Your task to perform on an android device: Open maps Image 0: 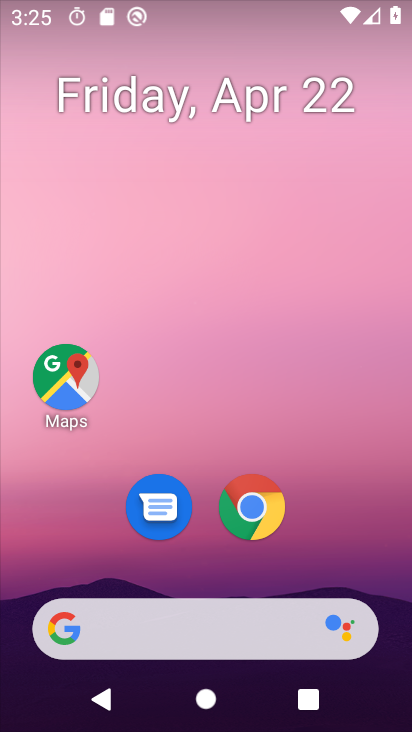
Step 0: drag from (324, 567) to (362, 58)
Your task to perform on an android device: Open maps Image 1: 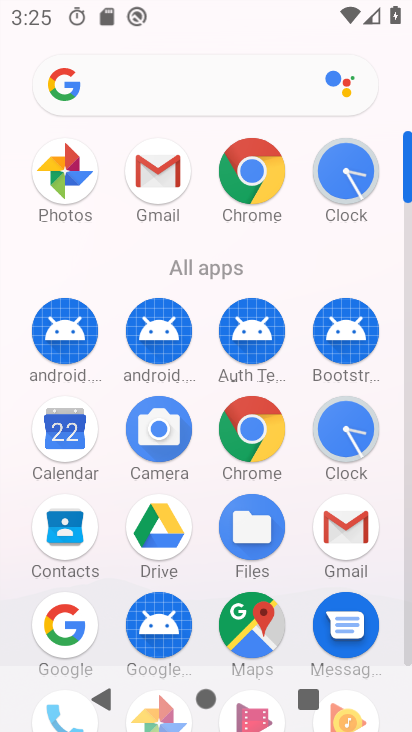
Step 1: drag from (394, 493) to (405, 151)
Your task to perform on an android device: Open maps Image 2: 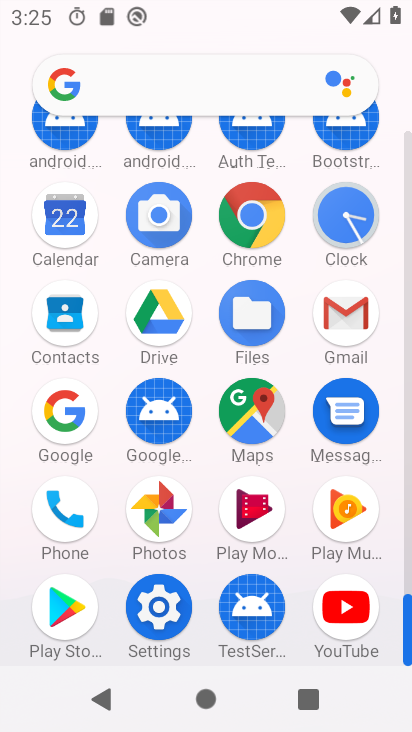
Step 2: click (253, 419)
Your task to perform on an android device: Open maps Image 3: 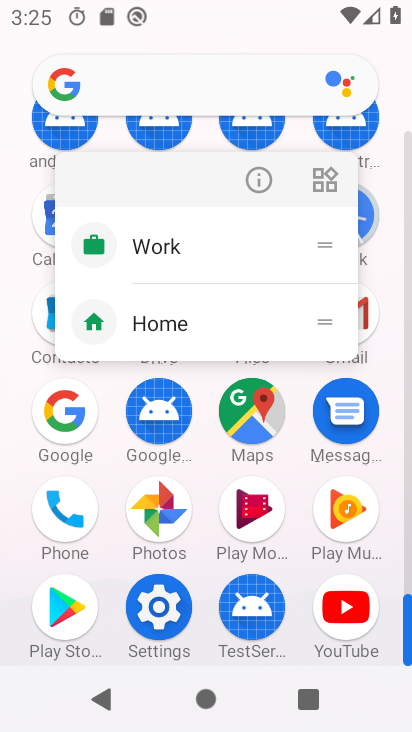
Step 3: click (253, 418)
Your task to perform on an android device: Open maps Image 4: 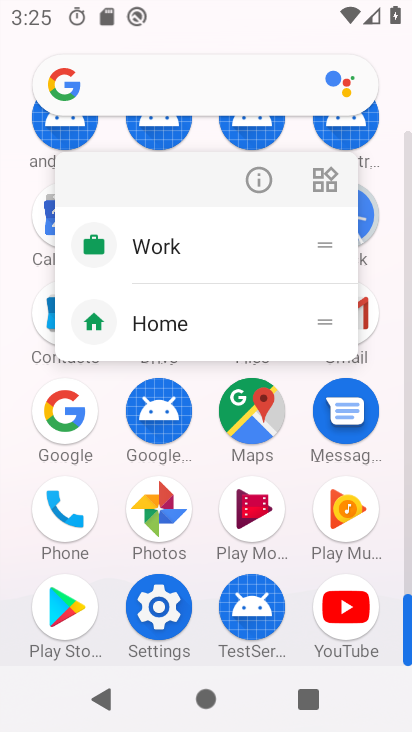
Step 4: click (253, 421)
Your task to perform on an android device: Open maps Image 5: 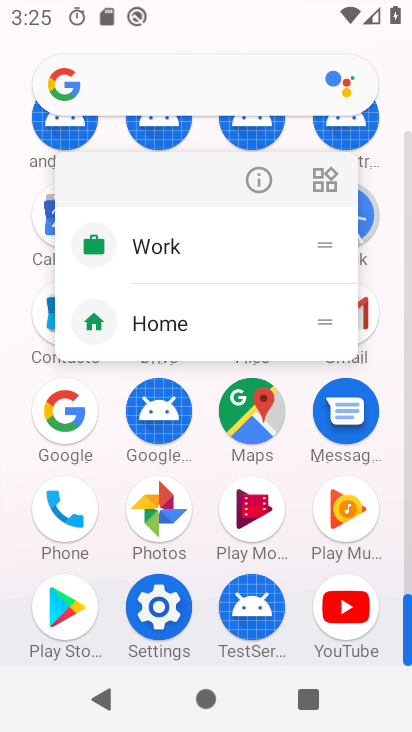
Step 5: click (253, 421)
Your task to perform on an android device: Open maps Image 6: 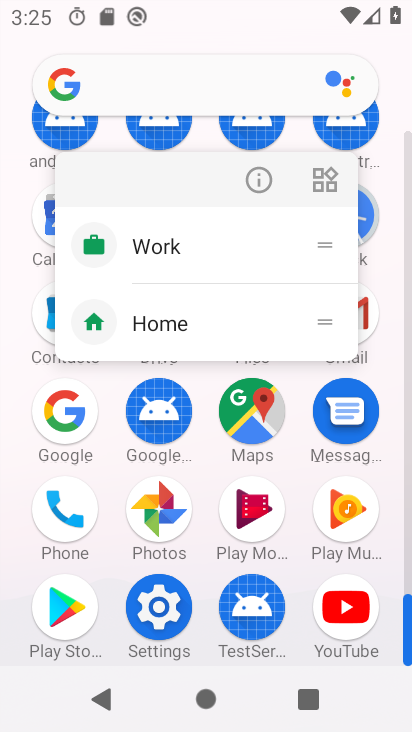
Step 6: click (253, 421)
Your task to perform on an android device: Open maps Image 7: 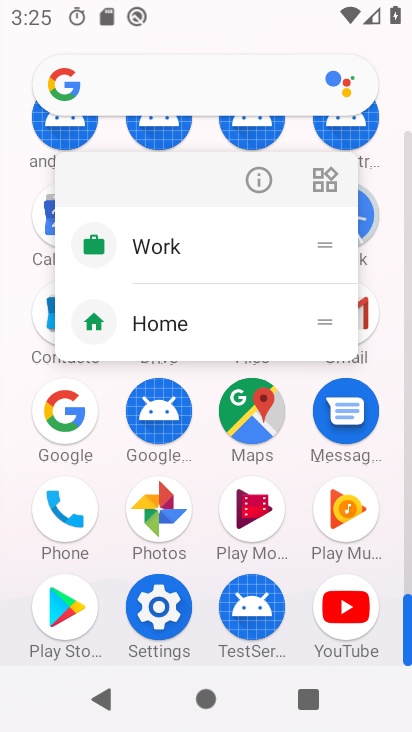
Step 7: click (255, 402)
Your task to perform on an android device: Open maps Image 8: 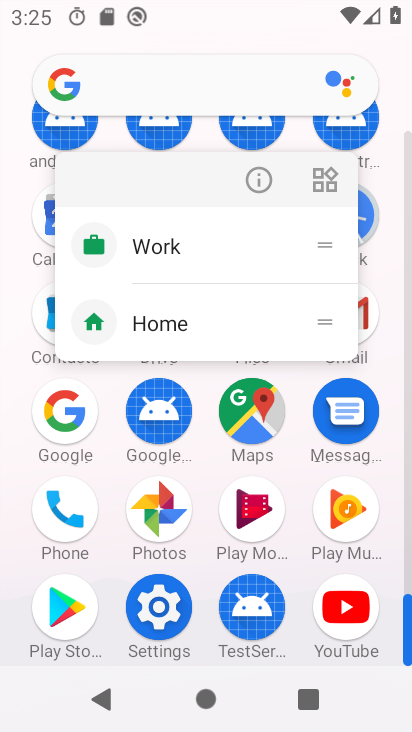
Step 8: click (255, 402)
Your task to perform on an android device: Open maps Image 9: 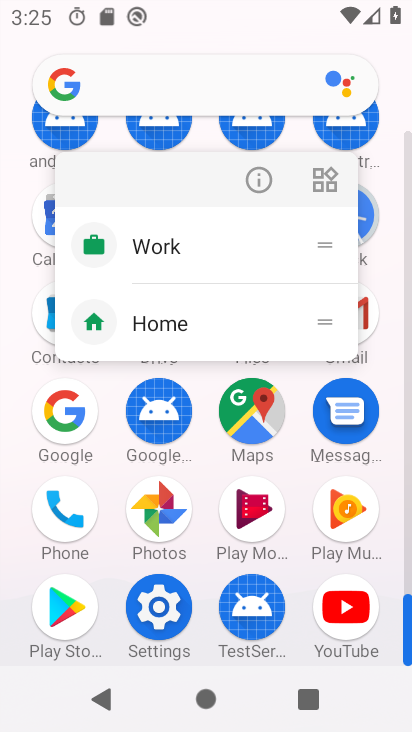
Step 9: click (255, 402)
Your task to perform on an android device: Open maps Image 10: 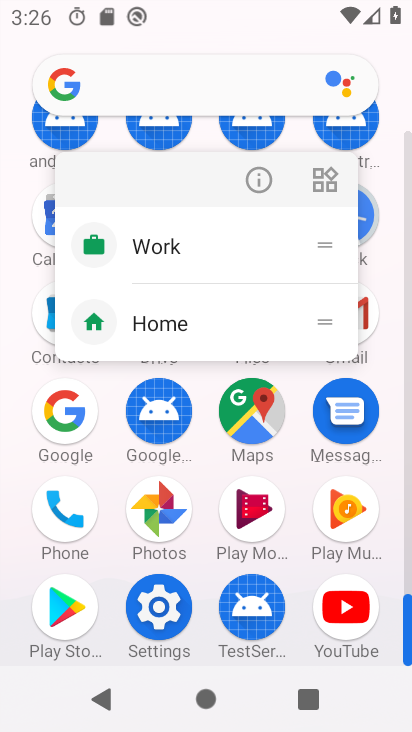
Step 10: click (255, 402)
Your task to perform on an android device: Open maps Image 11: 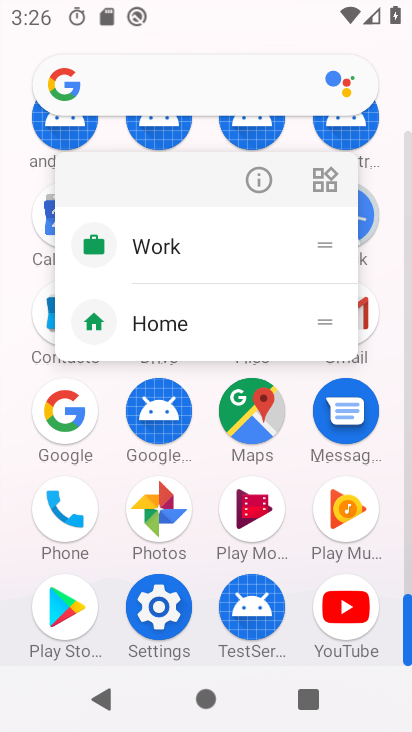
Step 11: click (255, 402)
Your task to perform on an android device: Open maps Image 12: 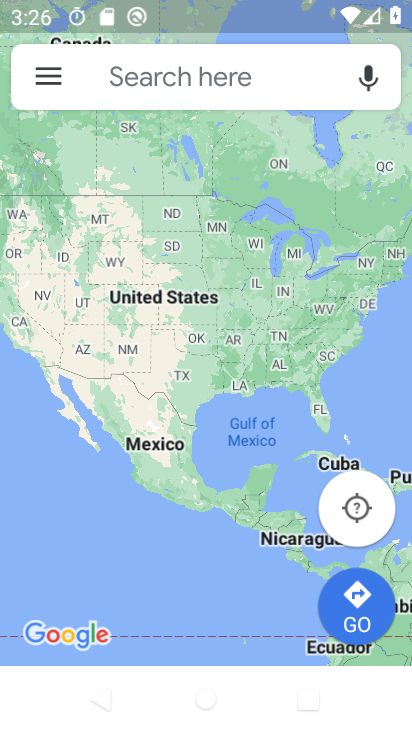
Step 12: task complete